Your task to perform on an android device: turn off picture-in-picture Image 0: 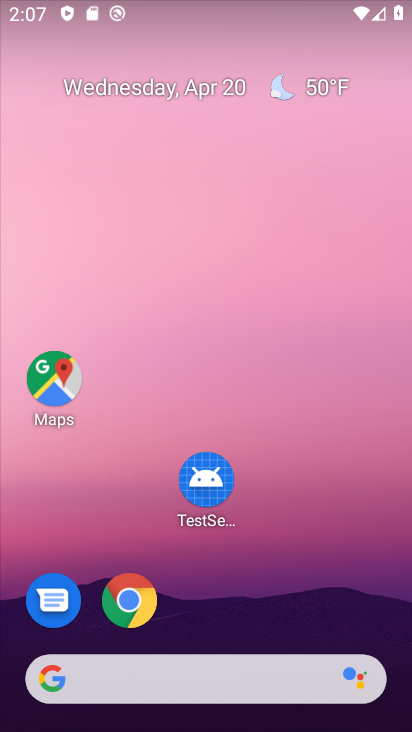
Step 0: click (121, 606)
Your task to perform on an android device: turn off picture-in-picture Image 1: 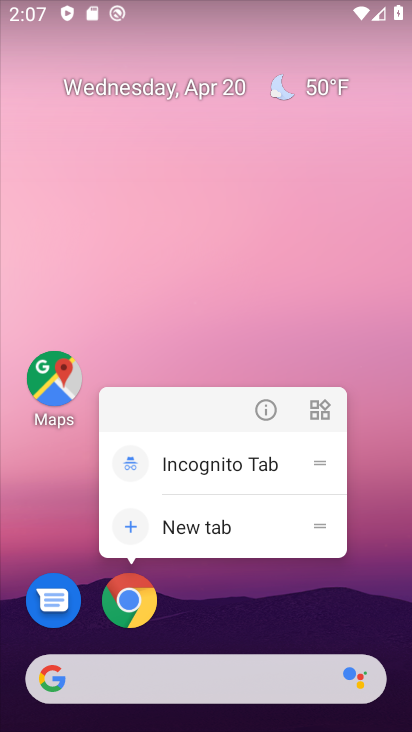
Step 1: click (258, 400)
Your task to perform on an android device: turn off picture-in-picture Image 2: 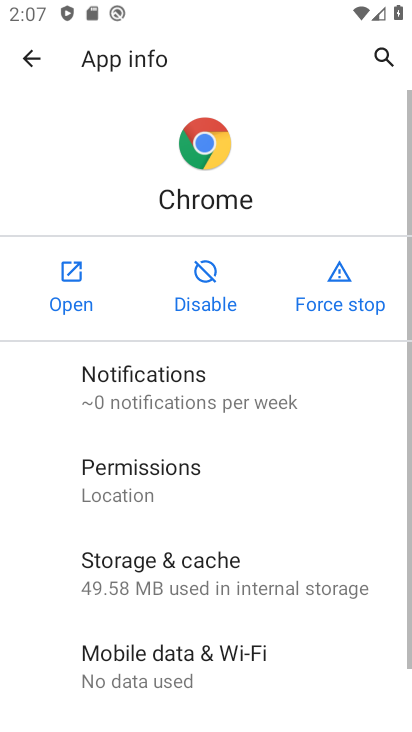
Step 2: drag from (256, 653) to (314, 189)
Your task to perform on an android device: turn off picture-in-picture Image 3: 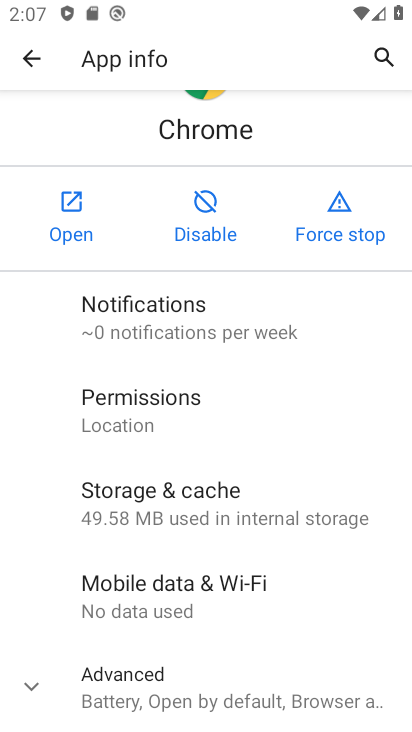
Step 3: click (160, 682)
Your task to perform on an android device: turn off picture-in-picture Image 4: 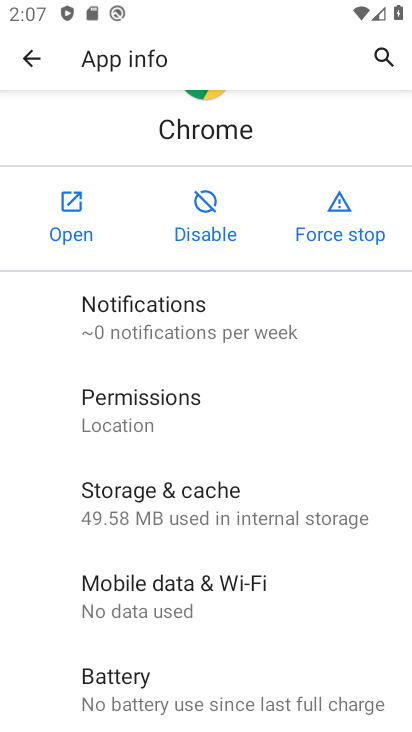
Step 4: drag from (193, 683) to (238, 301)
Your task to perform on an android device: turn off picture-in-picture Image 5: 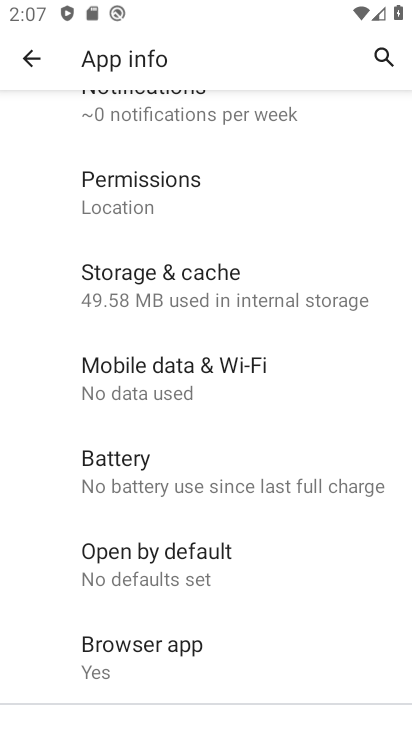
Step 5: drag from (254, 605) to (233, 218)
Your task to perform on an android device: turn off picture-in-picture Image 6: 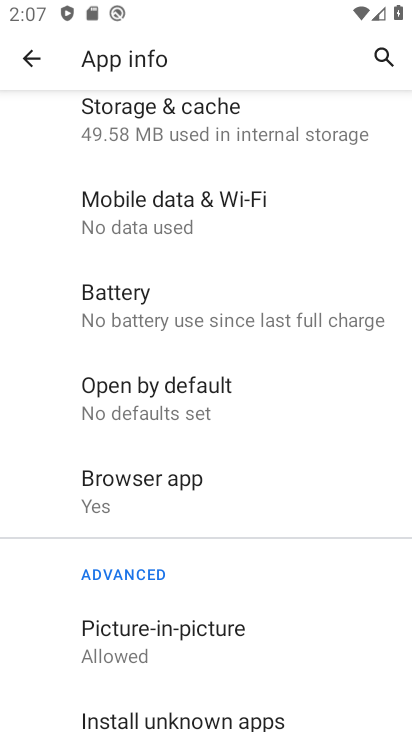
Step 6: drag from (318, 685) to (298, 314)
Your task to perform on an android device: turn off picture-in-picture Image 7: 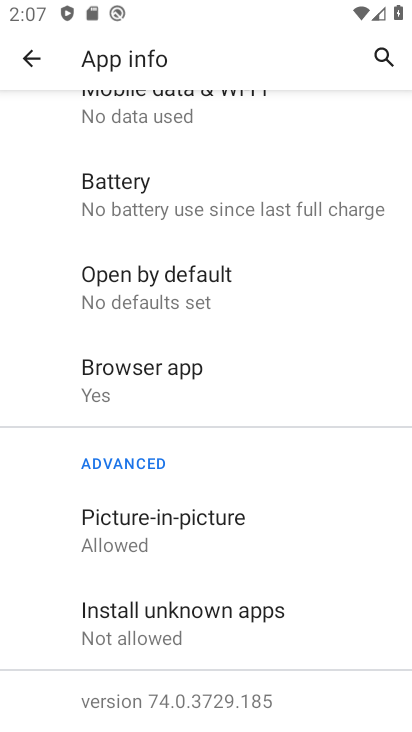
Step 7: click (209, 517)
Your task to perform on an android device: turn off picture-in-picture Image 8: 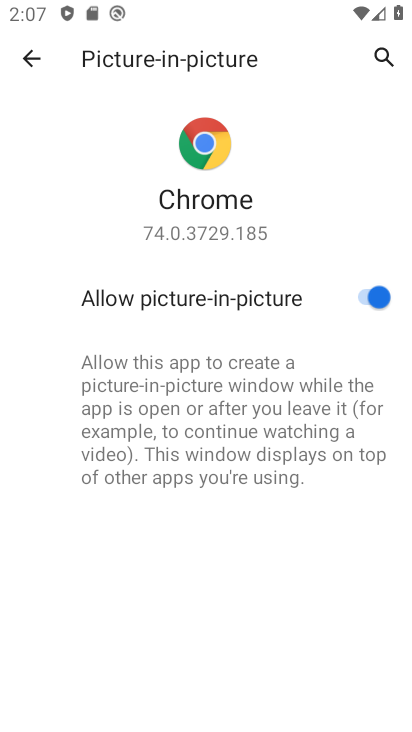
Step 8: click (369, 300)
Your task to perform on an android device: turn off picture-in-picture Image 9: 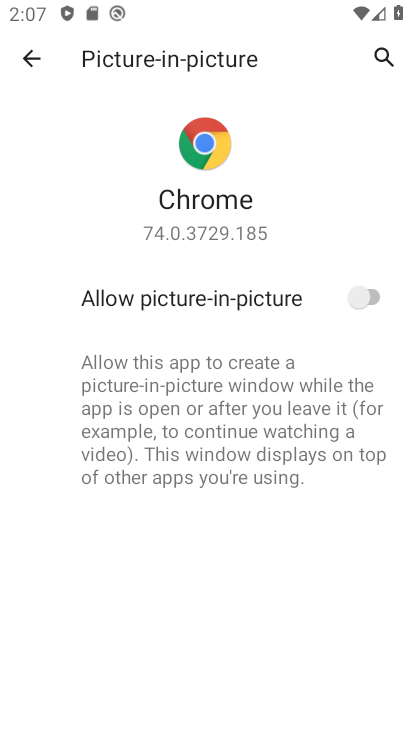
Step 9: task complete